Your task to perform on an android device: open sync settings in chrome Image 0: 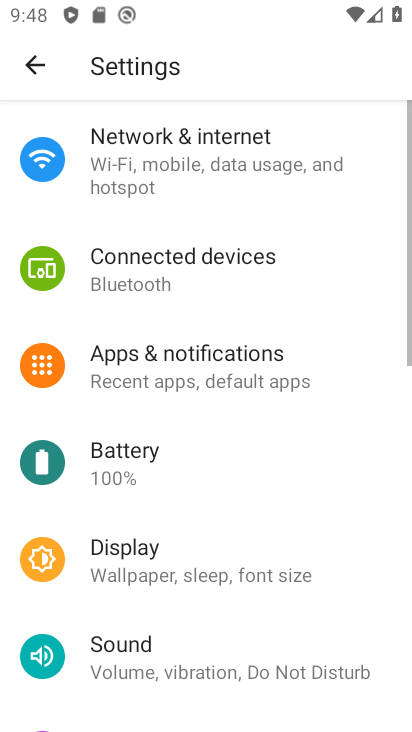
Step 0: press home button
Your task to perform on an android device: open sync settings in chrome Image 1: 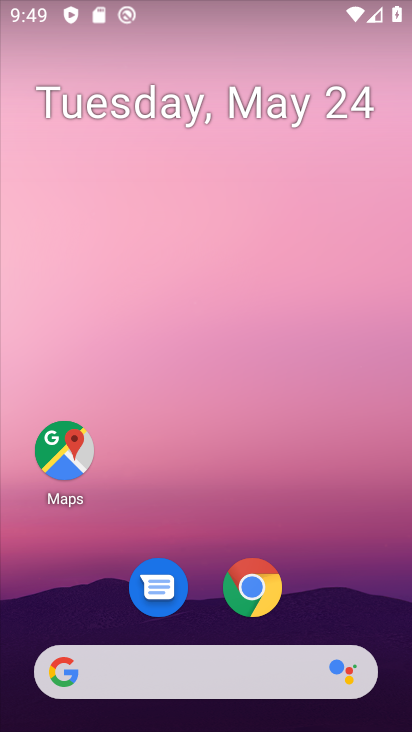
Step 1: drag from (373, 595) to (363, 83)
Your task to perform on an android device: open sync settings in chrome Image 2: 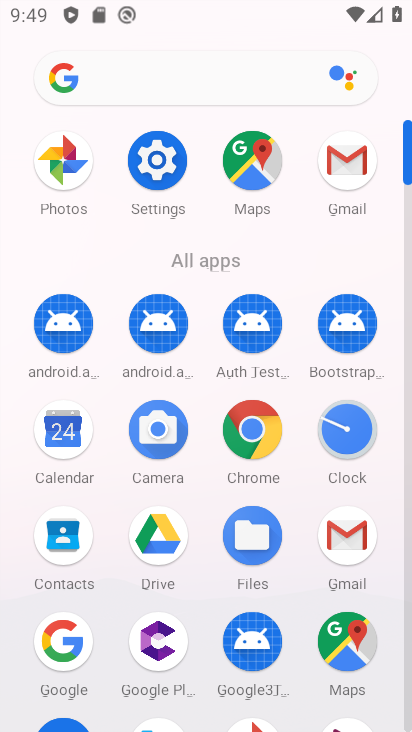
Step 2: click (255, 409)
Your task to perform on an android device: open sync settings in chrome Image 3: 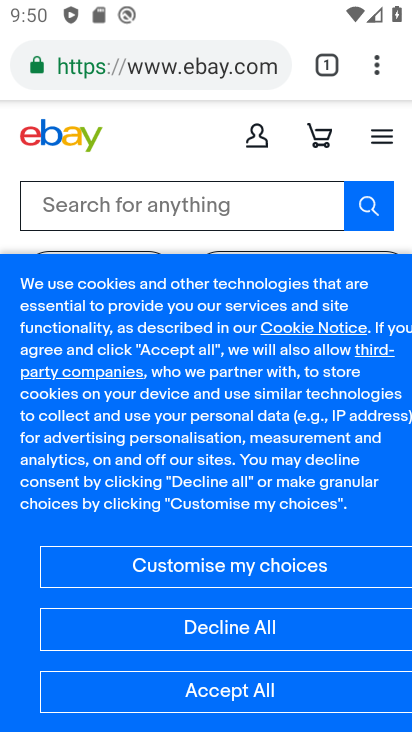
Step 3: drag from (374, 54) to (221, 625)
Your task to perform on an android device: open sync settings in chrome Image 4: 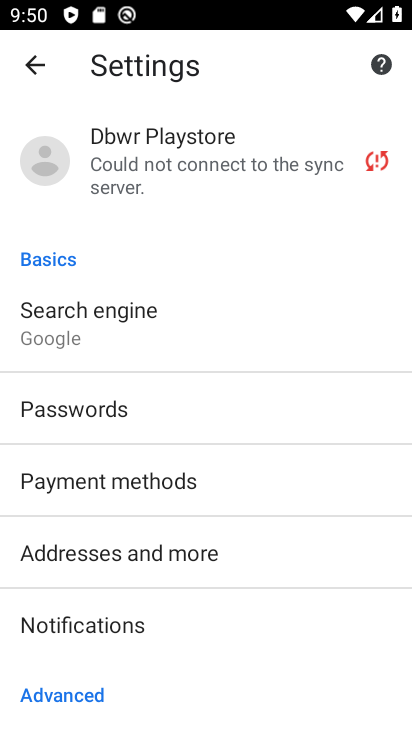
Step 4: drag from (211, 580) to (229, 245)
Your task to perform on an android device: open sync settings in chrome Image 5: 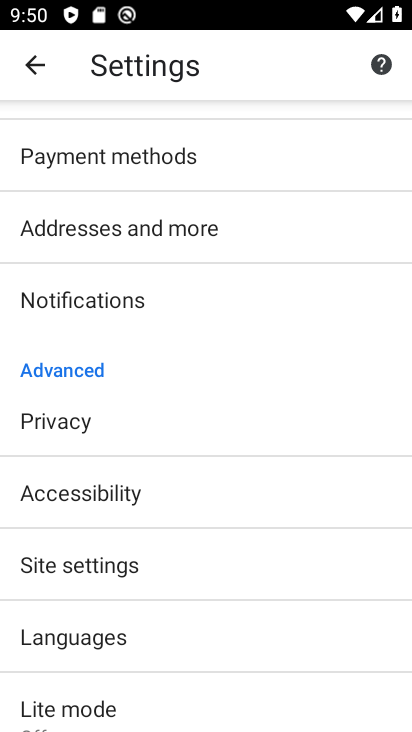
Step 5: drag from (81, 165) to (129, 612)
Your task to perform on an android device: open sync settings in chrome Image 6: 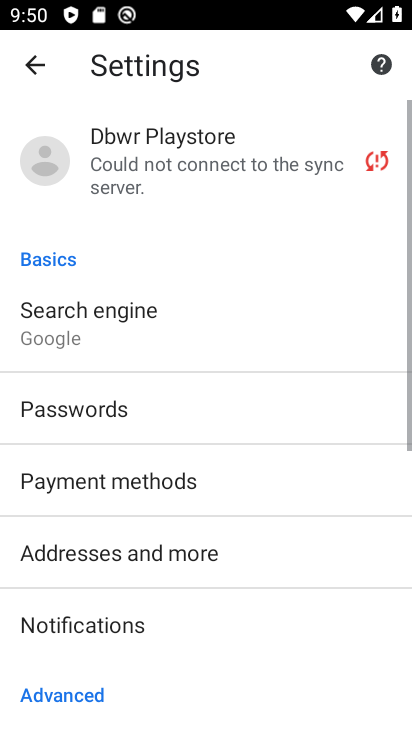
Step 6: click (100, 164)
Your task to perform on an android device: open sync settings in chrome Image 7: 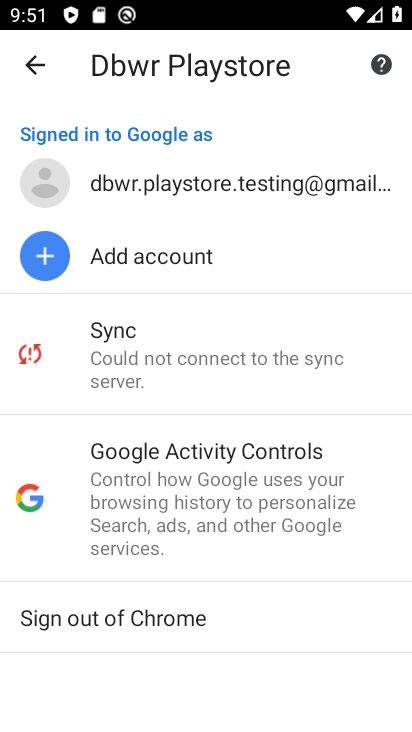
Step 7: click (122, 348)
Your task to perform on an android device: open sync settings in chrome Image 8: 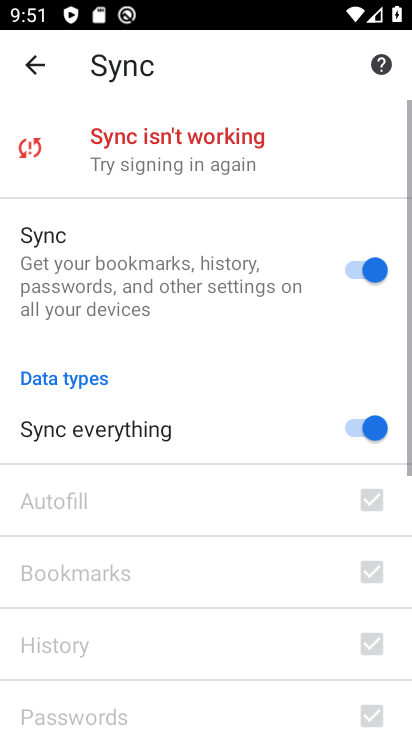
Step 8: task complete